Your task to perform on an android device: Clear the shopping cart on amazon. Image 0: 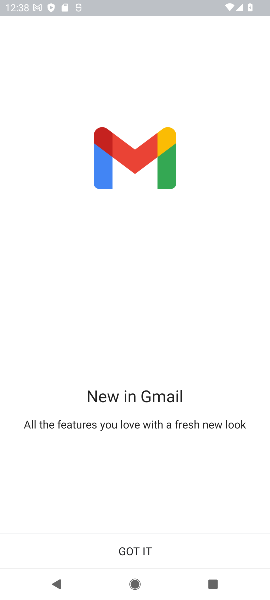
Step 0: press home button
Your task to perform on an android device: Clear the shopping cart on amazon. Image 1: 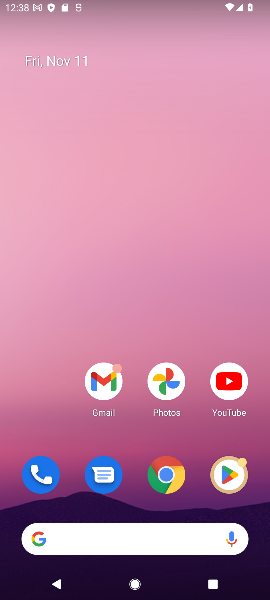
Step 1: drag from (170, 476) to (187, 97)
Your task to perform on an android device: Clear the shopping cart on amazon. Image 2: 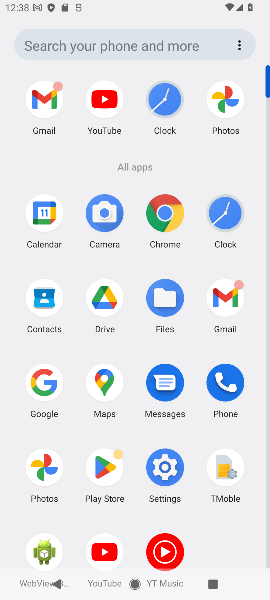
Step 2: click (159, 216)
Your task to perform on an android device: Clear the shopping cart on amazon. Image 3: 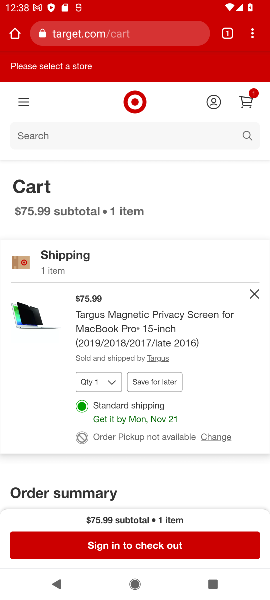
Step 3: click (79, 35)
Your task to perform on an android device: Clear the shopping cart on amazon. Image 4: 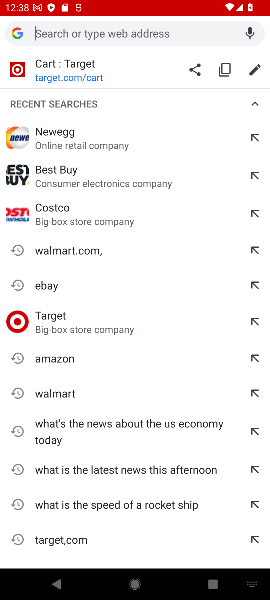
Step 4: type "amazon"
Your task to perform on an android device: Clear the shopping cart on amazon. Image 5: 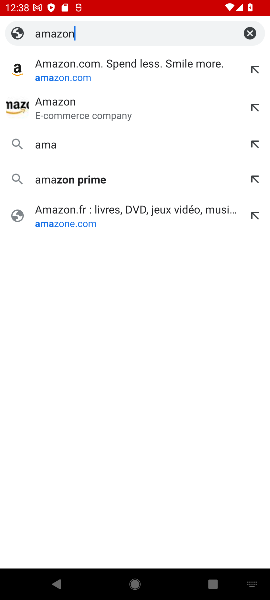
Step 5: press enter
Your task to perform on an android device: Clear the shopping cart on amazon. Image 6: 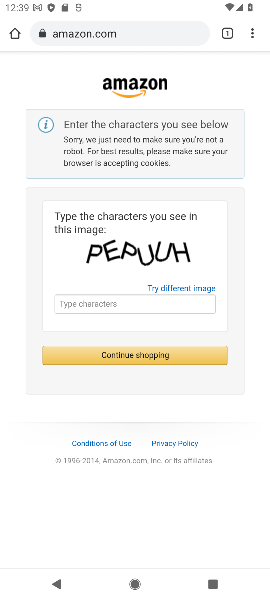
Step 6: click (58, 305)
Your task to perform on an android device: Clear the shopping cart on amazon. Image 7: 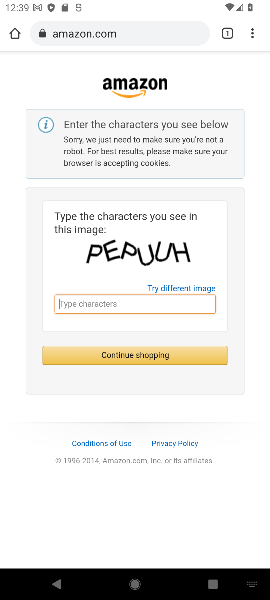
Step 7: type "PEPUUH"
Your task to perform on an android device: Clear the shopping cart on amazon. Image 8: 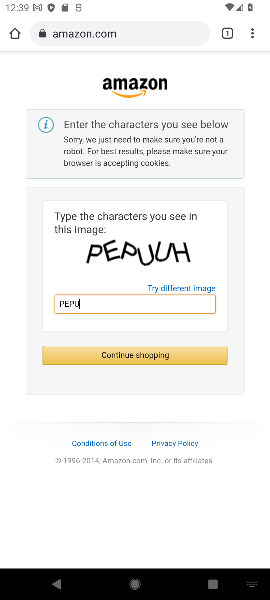
Step 8: press enter
Your task to perform on an android device: Clear the shopping cart on amazon. Image 9: 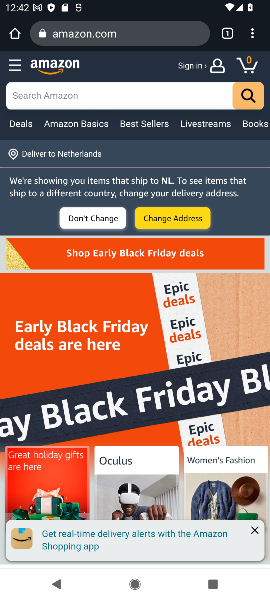
Step 9: task complete